Your task to perform on an android device: Open calendar and show me the second week of next month Image 0: 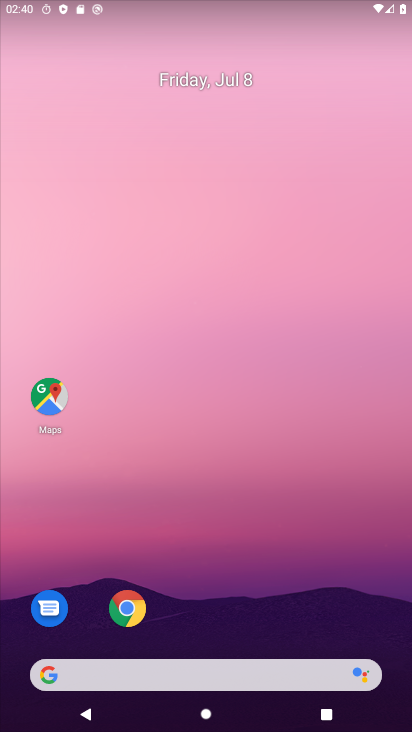
Step 0: drag from (210, 607) to (256, 153)
Your task to perform on an android device: Open calendar and show me the second week of next month Image 1: 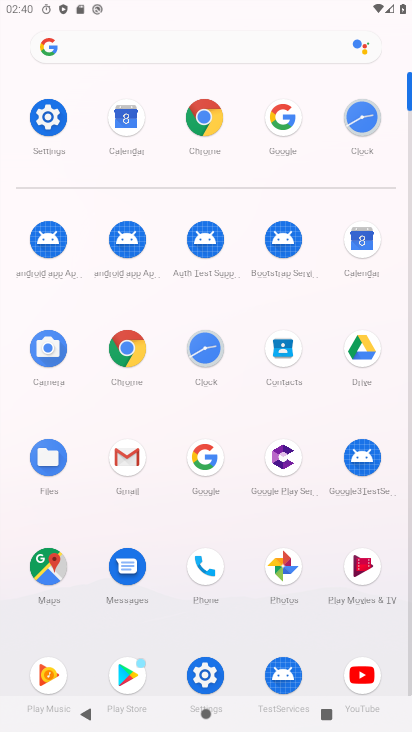
Step 1: click (372, 231)
Your task to perform on an android device: Open calendar and show me the second week of next month Image 2: 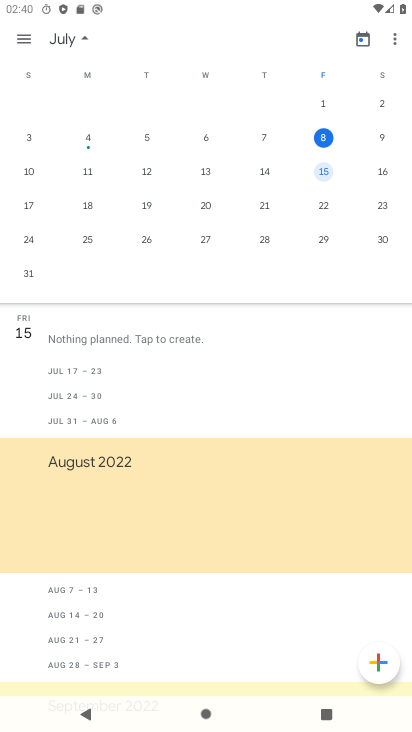
Step 2: drag from (384, 274) to (18, 238)
Your task to perform on an android device: Open calendar and show me the second week of next month Image 3: 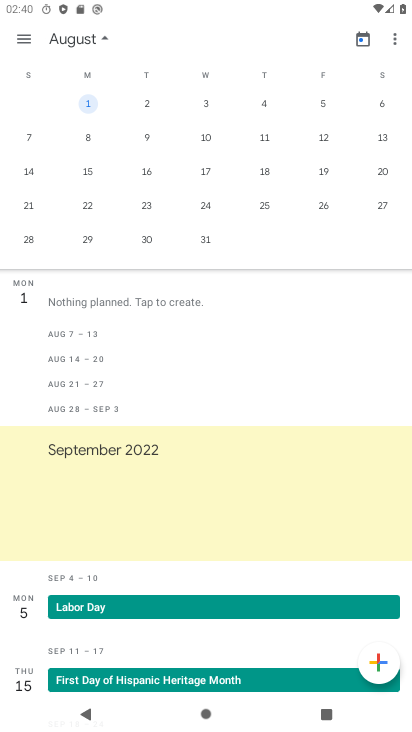
Step 3: click (265, 141)
Your task to perform on an android device: Open calendar and show me the second week of next month Image 4: 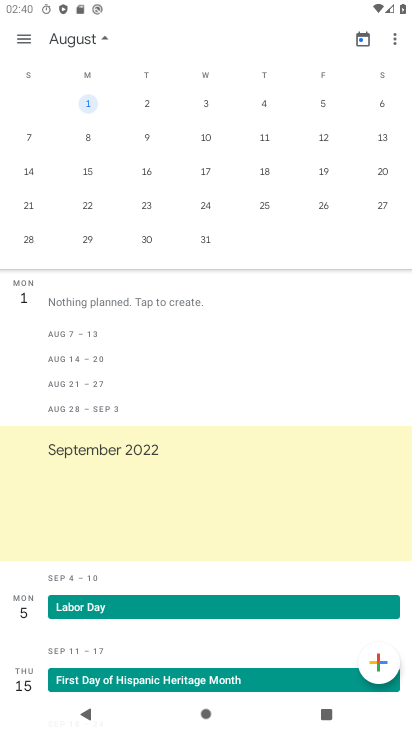
Step 4: click (267, 135)
Your task to perform on an android device: Open calendar and show me the second week of next month Image 5: 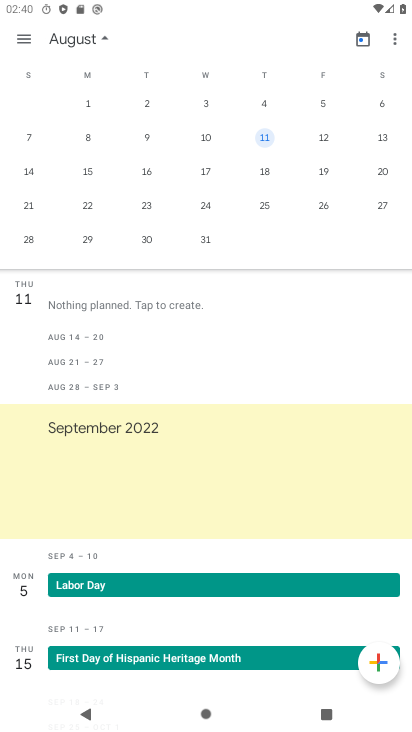
Step 5: task complete